Your task to perform on an android device: toggle show notifications on the lock screen Image 0: 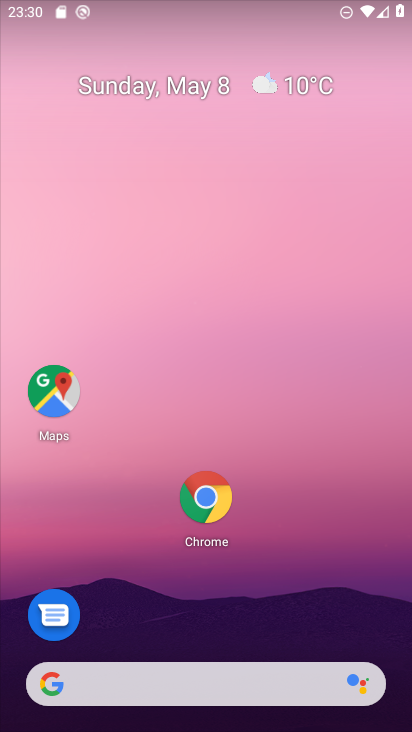
Step 0: drag from (333, 388) to (369, 38)
Your task to perform on an android device: toggle show notifications on the lock screen Image 1: 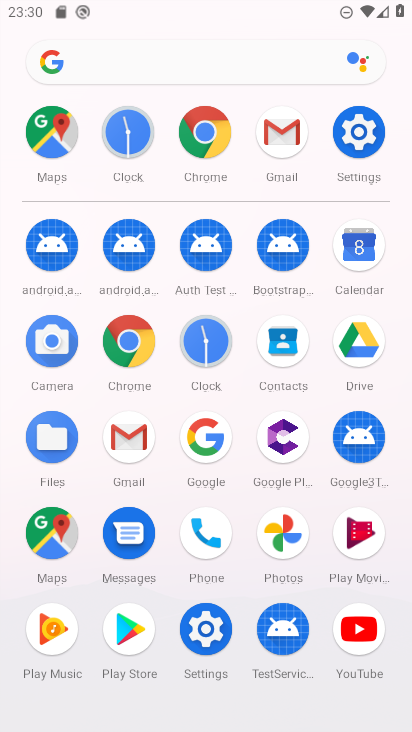
Step 1: click (366, 133)
Your task to perform on an android device: toggle show notifications on the lock screen Image 2: 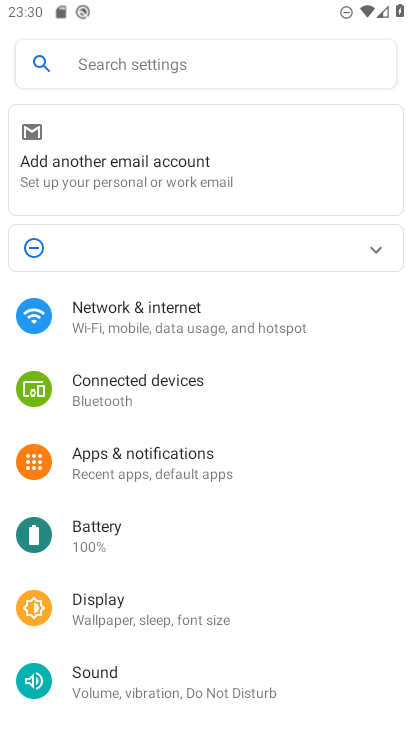
Step 2: drag from (262, 590) to (369, 94)
Your task to perform on an android device: toggle show notifications on the lock screen Image 3: 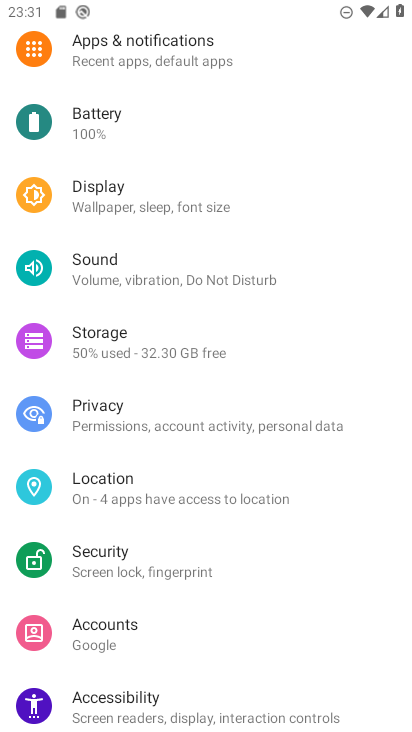
Step 3: drag from (175, 570) to (225, 150)
Your task to perform on an android device: toggle show notifications on the lock screen Image 4: 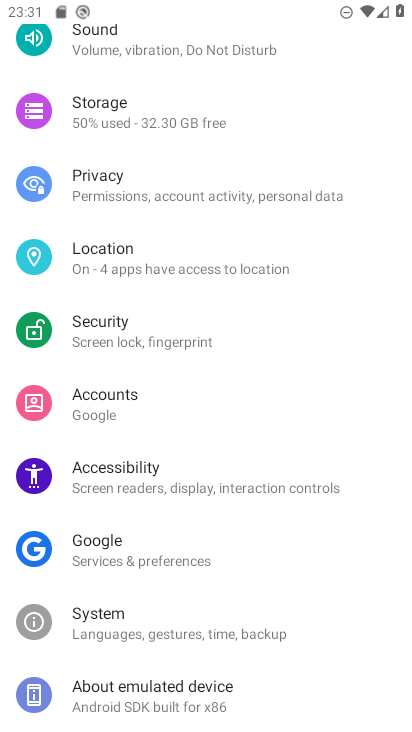
Step 4: drag from (200, 172) to (208, 717)
Your task to perform on an android device: toggle show notifications on the lock screen Image 5: 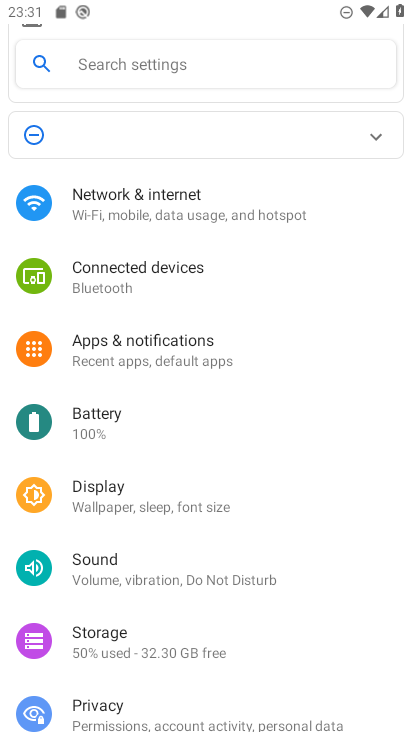
Step 5: click (173, 337)
Your task to perform on an android device: toggle show notifications on the lock screen Image 6: 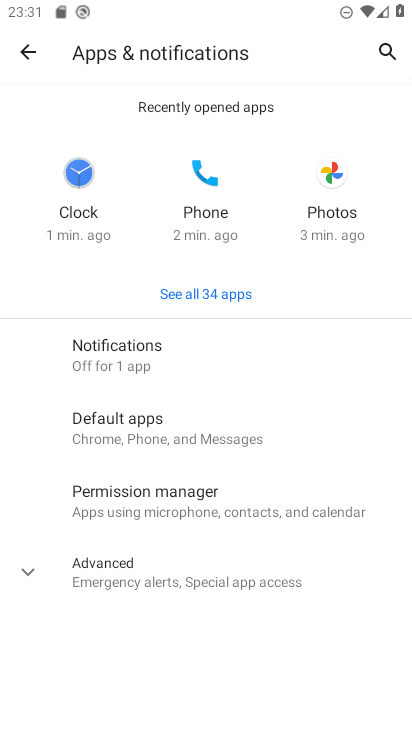
Step 6: click (203, 357)
Your task to perform on an android device: toggle show notifications on the lock screen Image 7: 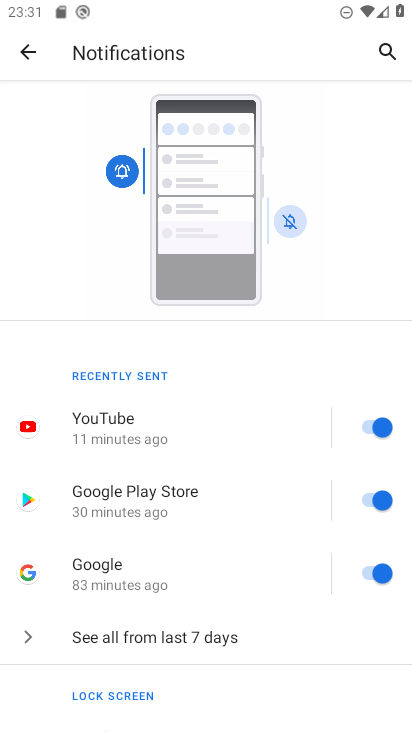
Step 7: drag from (195, 607) to (289, 128)
Your task to perform on an android device: toggle show notifications on the lock screen Image 8: 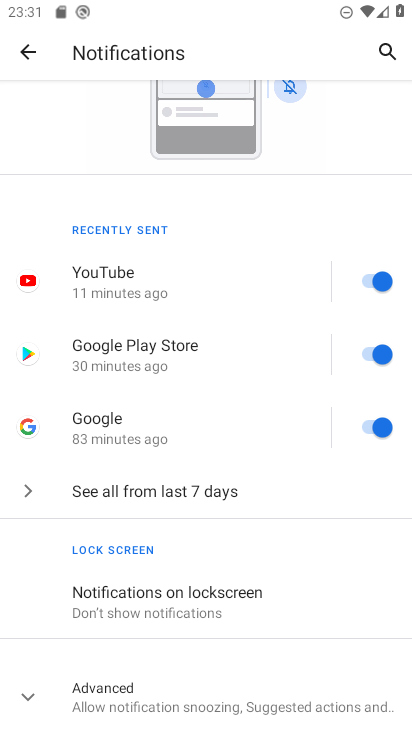
Step 8: click (192, 603)
Your task to perform on an android device: toggle show notifications on the lock screen Image 9: 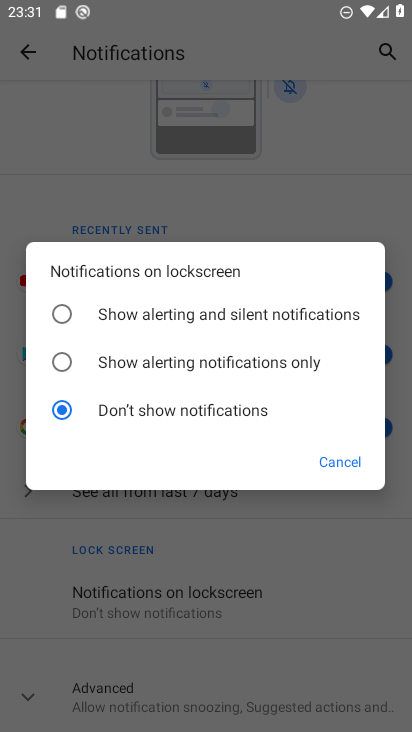
Step 9: click (214, 358)
Your task to perform on an android device: toggle show notifications on the lock screen Image 10: 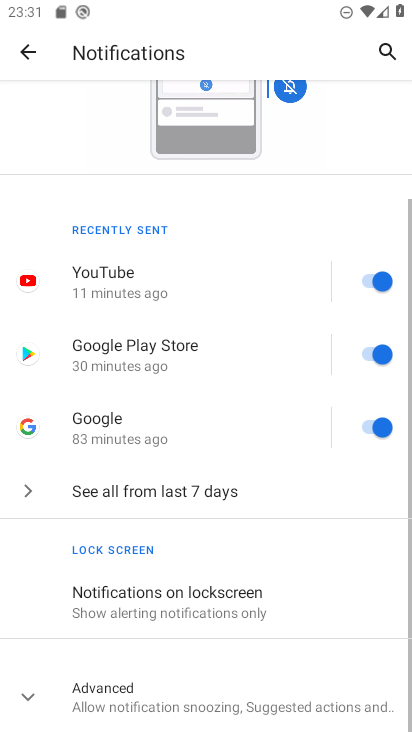
Step 10: task complete